Your task to perform on an android device: Search for the best books on Goodreads. Image 0: 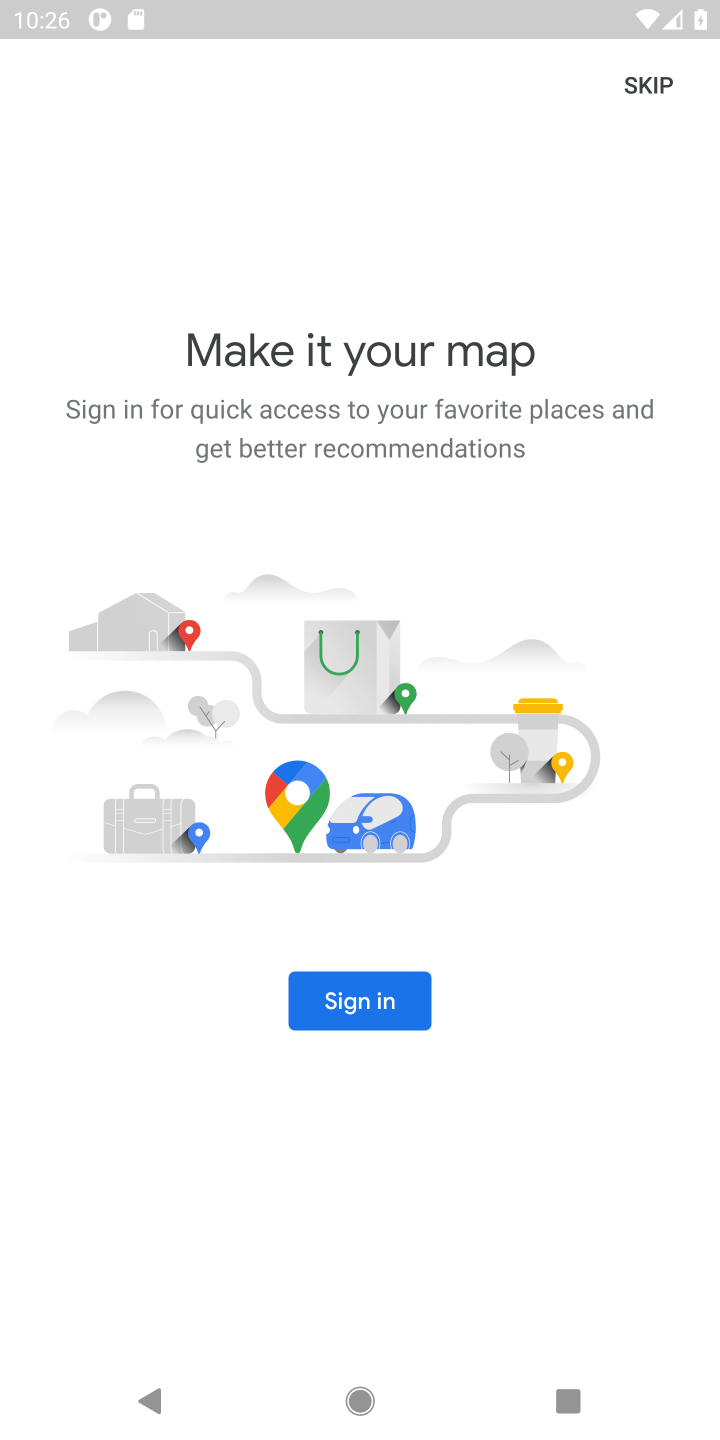
Step 0: press home button
Your task to perform on an android device: Search for the best books on Goodreads. Image 1: 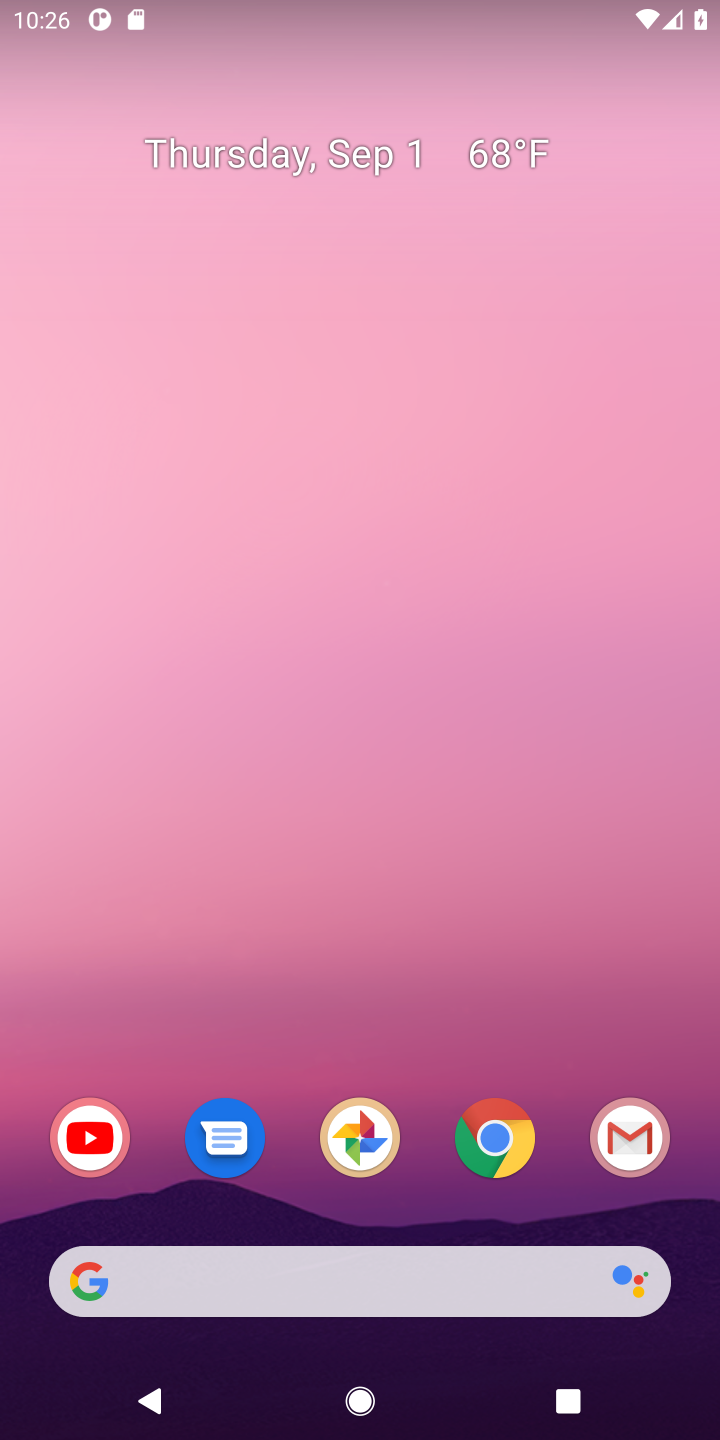
Step 1: click (493, 1127)
Your task to perform on an android device: Search for the best books on Goodreads. Image 2: 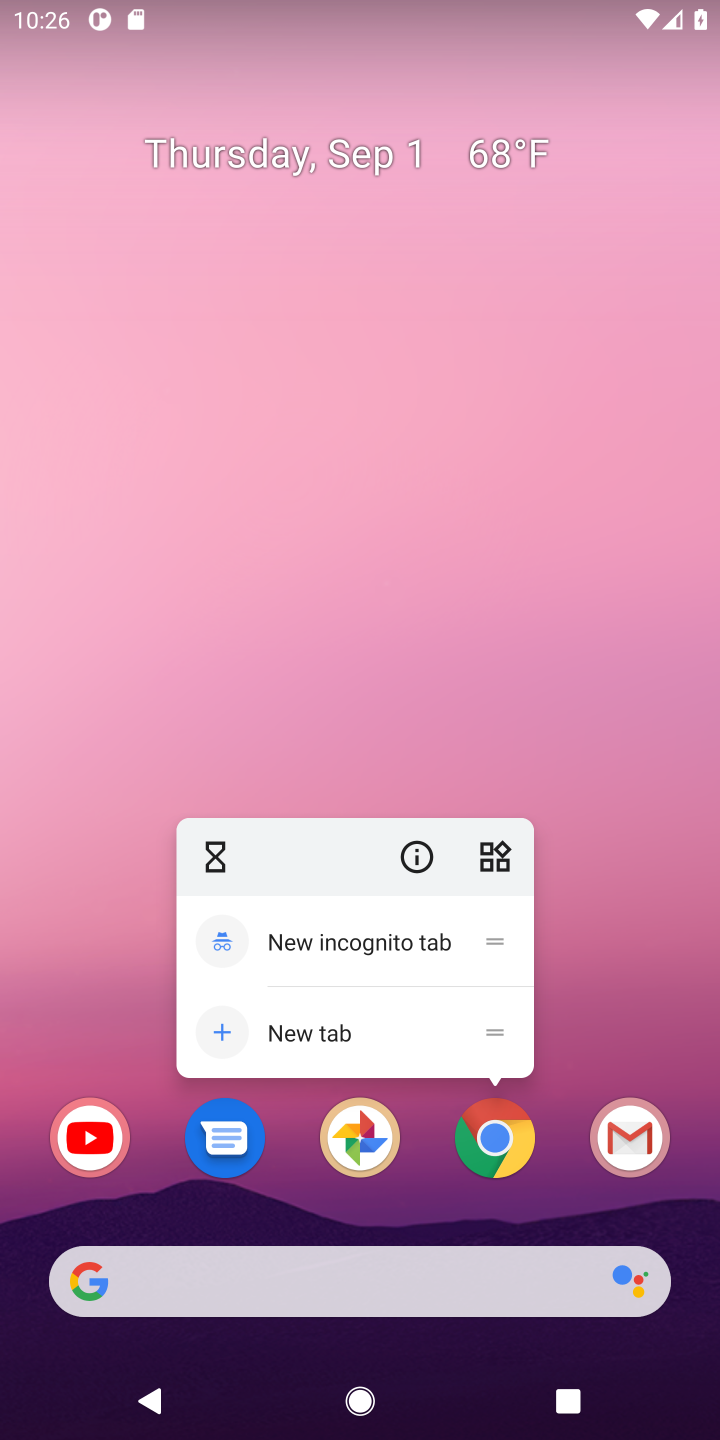
Step 2: click (493, 1149)
Your task to perform on an android device: Search for the best books on Goodreads. Image 3: 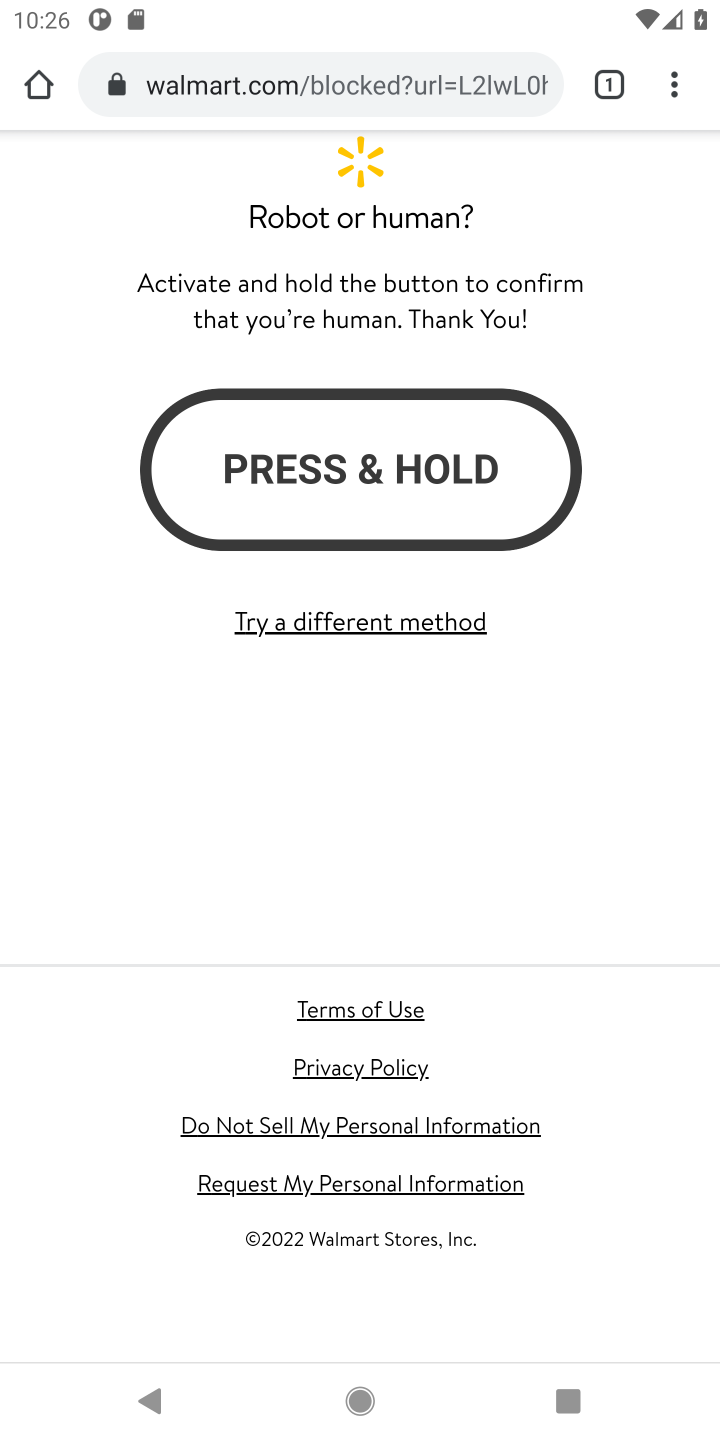
Step 3: click (342, 85)
Your task to perform on an android device: Search for the best books on Goodreads. Image 4: 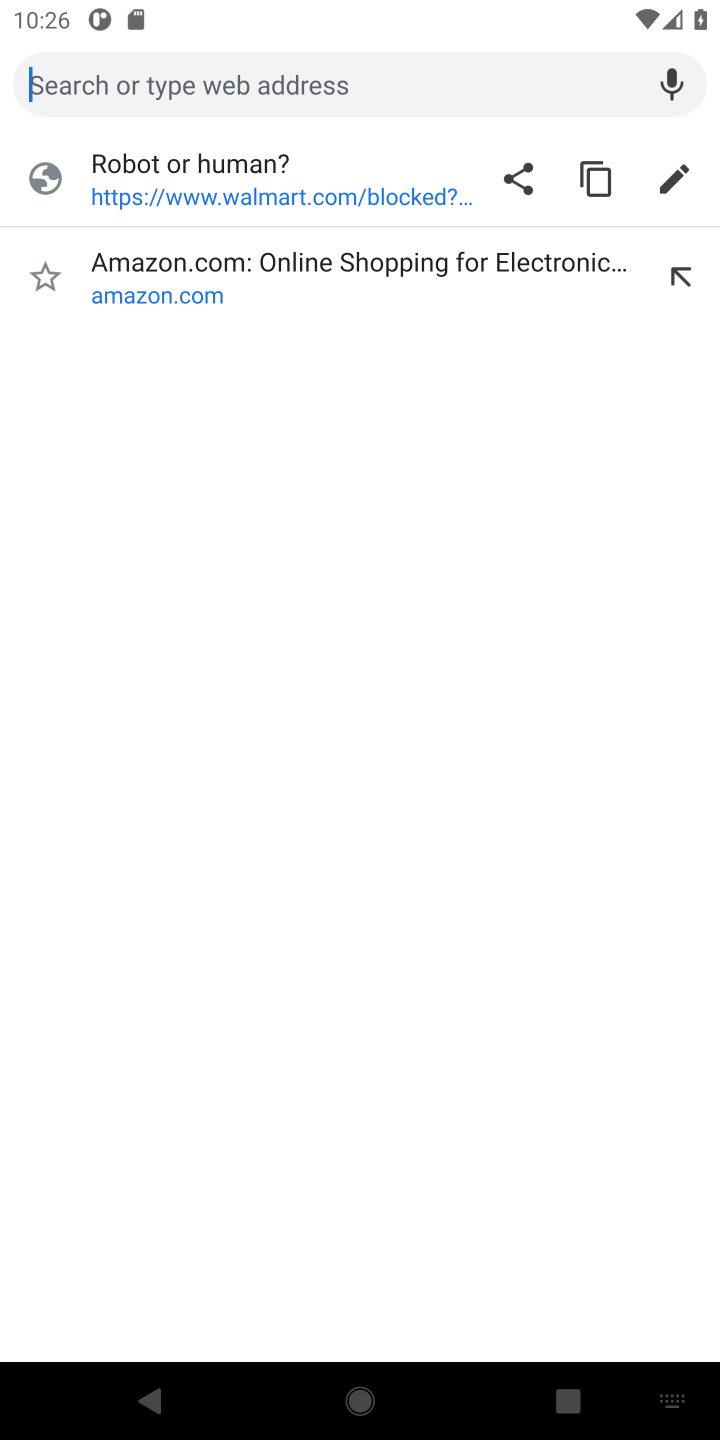
Step 4: type "the best books on Goodreads"
Your task to perform on an android device: Search for the best books on Goodreads. Image 5: 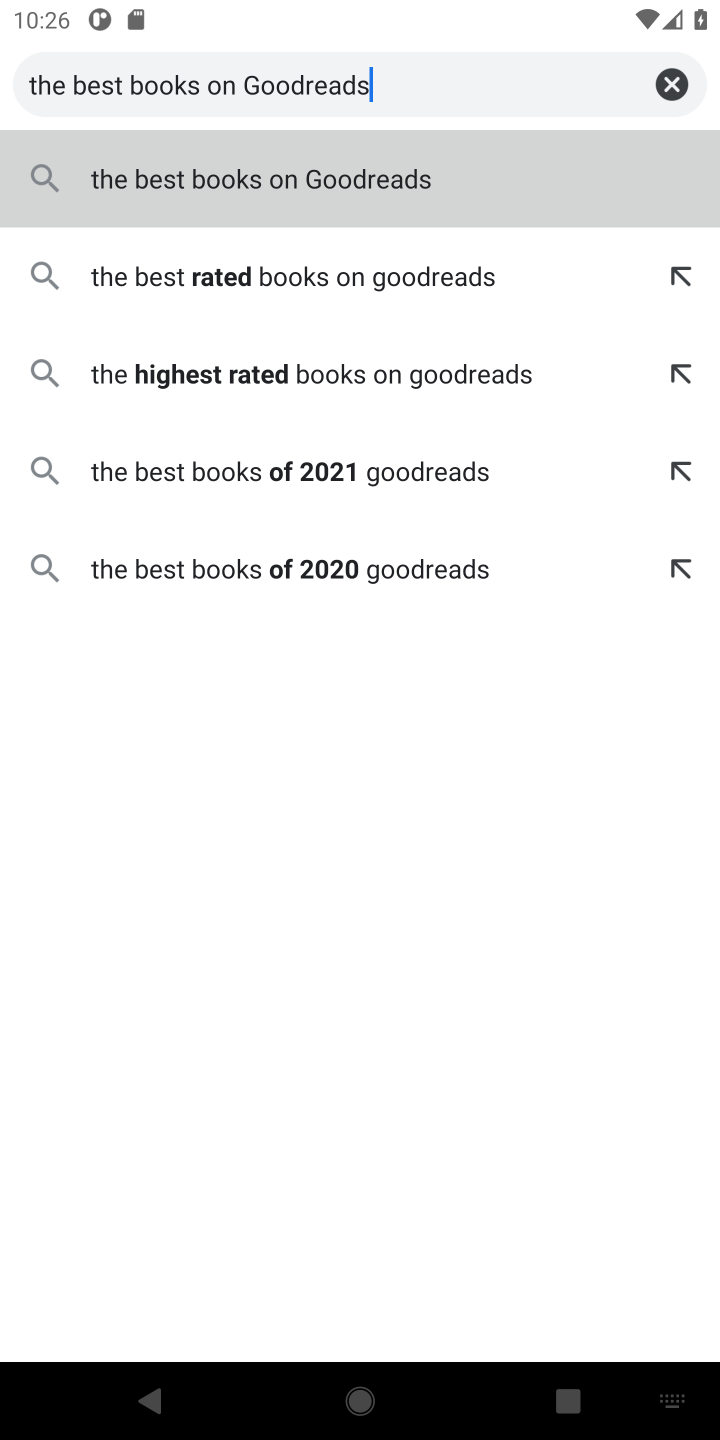
Step 5: click (275, 168)
Your task to perform on an android device: Search for the best books on Goodreads. Image 6: 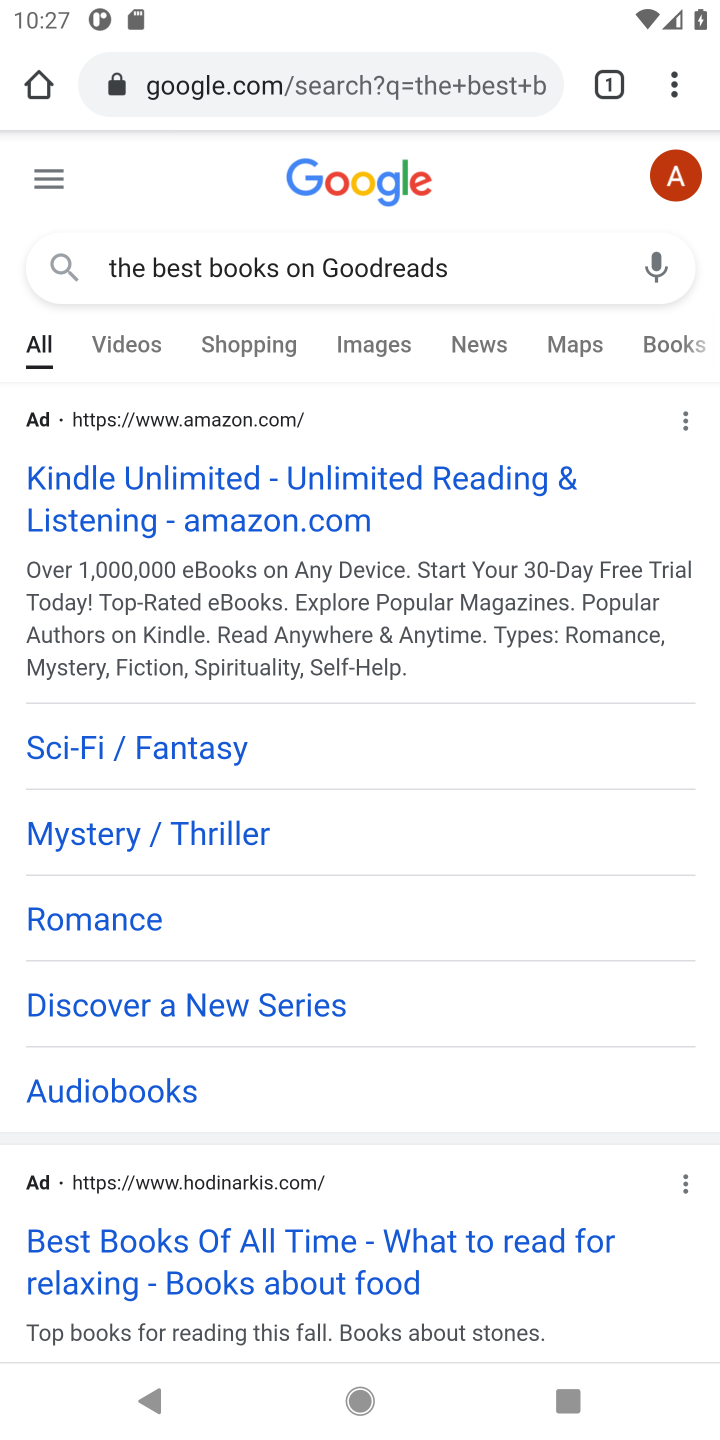
Step 6: click (174, 523)
Your task to perform on an android device: Search for the best books on Goodreads. Image 7: 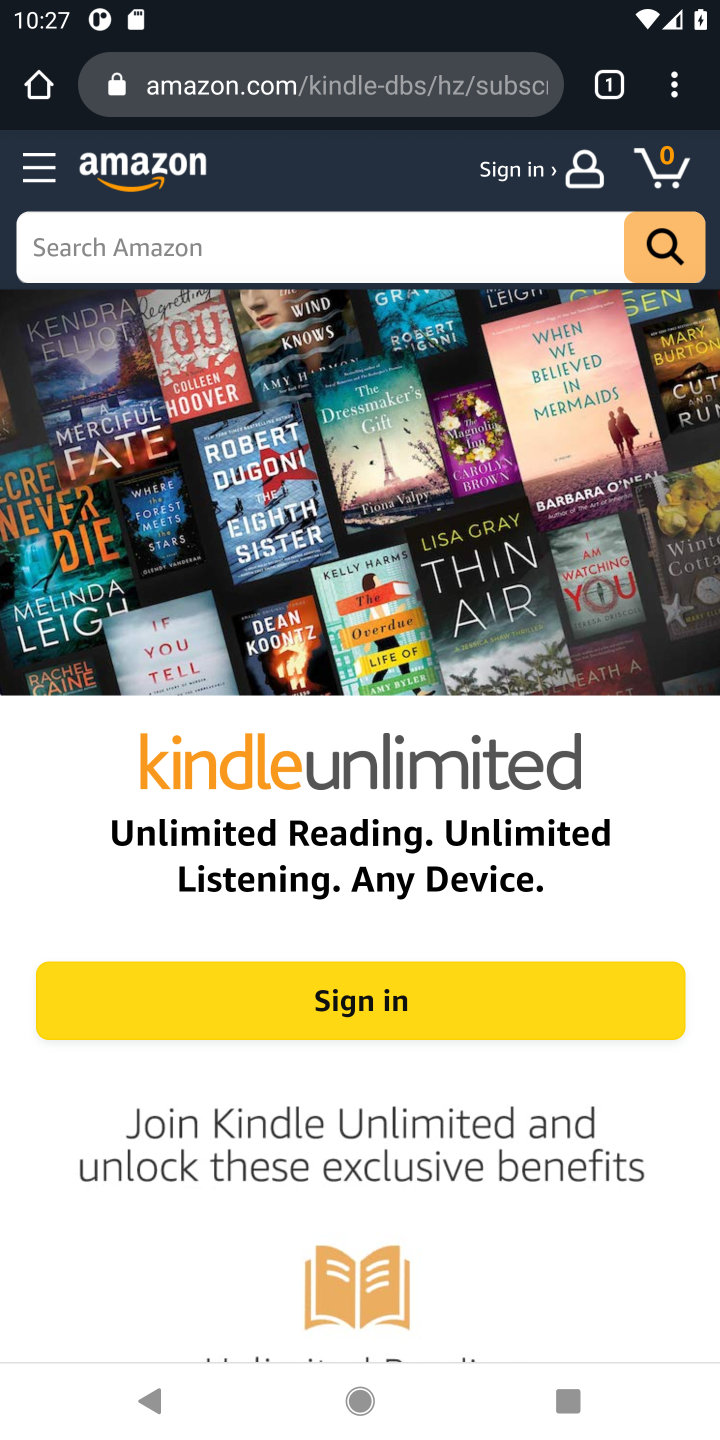
Step 7: task complete